Your task to perform on an android device: toggle show notifications on the lock screen Image 0: 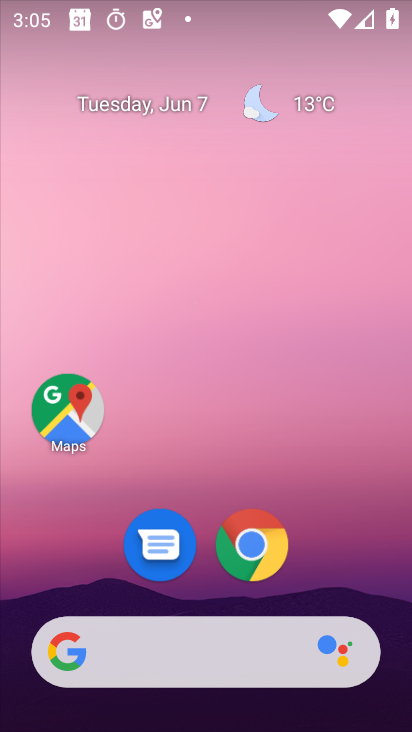
Step 0: drag from (304, 312) to (208, 50)
Your task to perform on an android device: toggle show notifications on the lock screen Image 1: 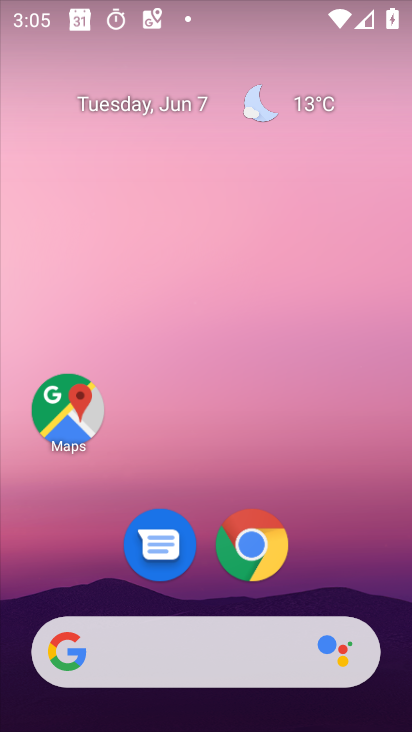
Step 1: drag from (225, 39) to (189, 22)
Your task to perform on an android device: toggle show notifications on the lock screen Image 2: 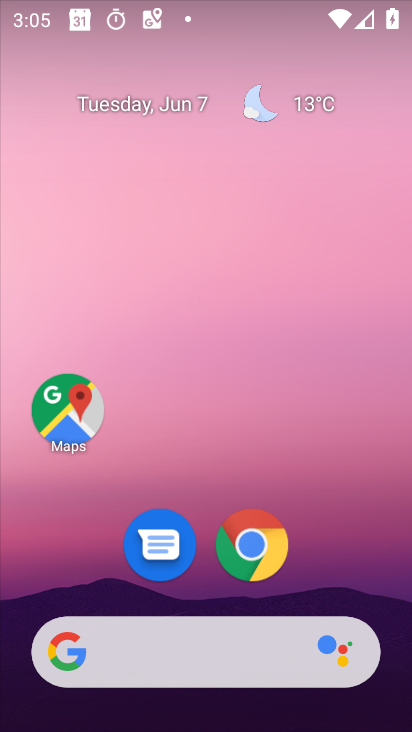
Step 2: drag from (350, 556) to (297, 21)
Your task to perform on an android device: toggle show notifications on the lock screen Image 3: 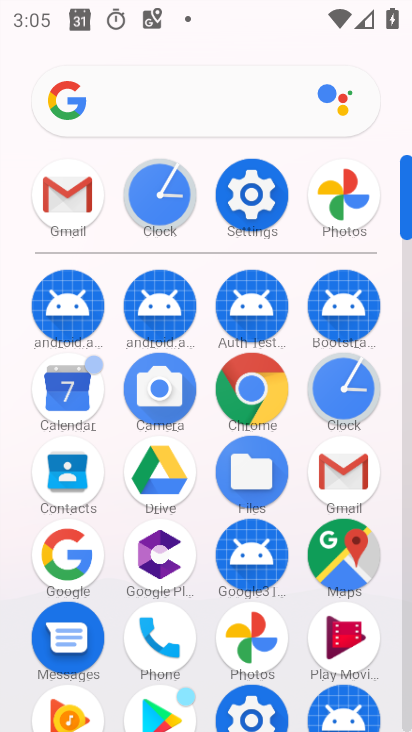
Step 3: click (266, 192)
Your task to perform on an android device: toggle show notifications on the lock screen Image 4: 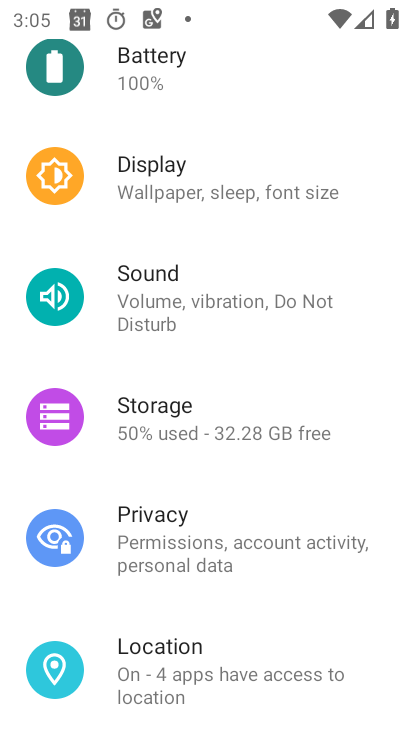
Step 4: drag from (213, 147) to (277, 697)
Your task to perform on an android device: toggle show notifications on the lock screen Image 5: 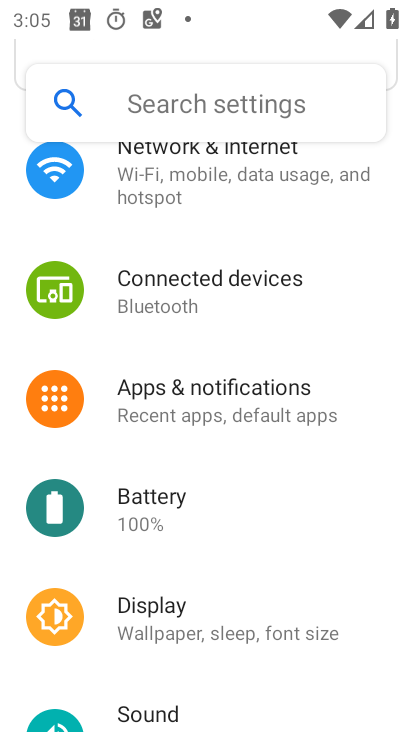
Step 5: click (258, 390)
Your task to perform on an android device: toggle show notifications on the lock screen Image 6: 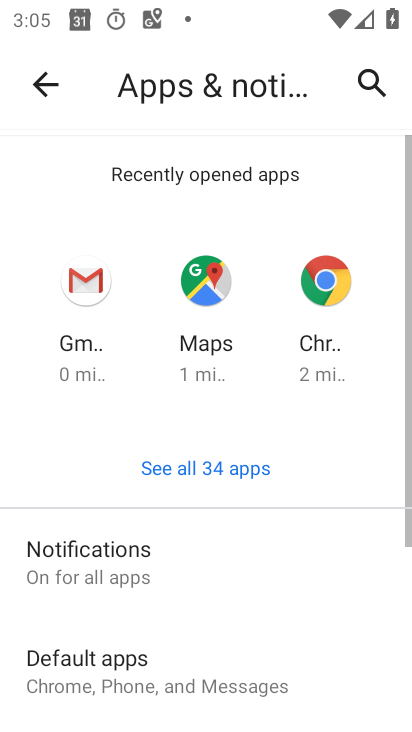
Step 6: click (200, 548)
Your task to perform on an android device: toggle show notifications on the lock screen Image 7: 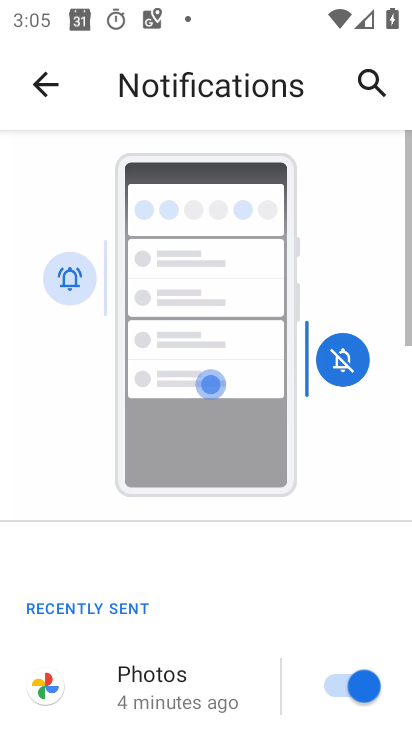
Step 7: drag from (218, 588) to (212, 31)
Your task to perform on an android device: toggle show notifications on the lock screen Image 8: 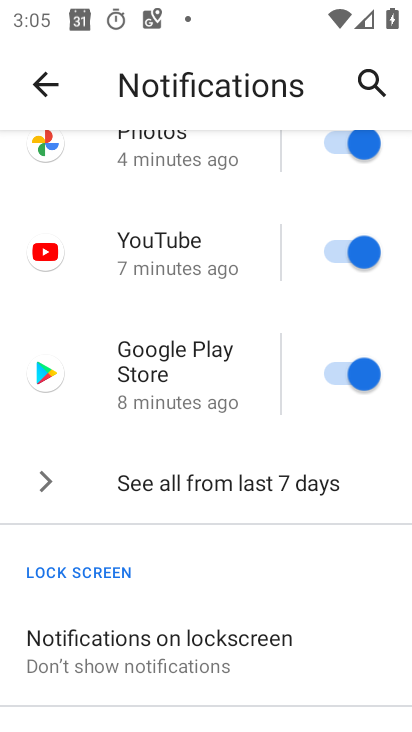
Step 8: drag from (251, 506) to (226, 99)
Your task to perform on an android device: toggle show notifications on the lock screen Image 9: 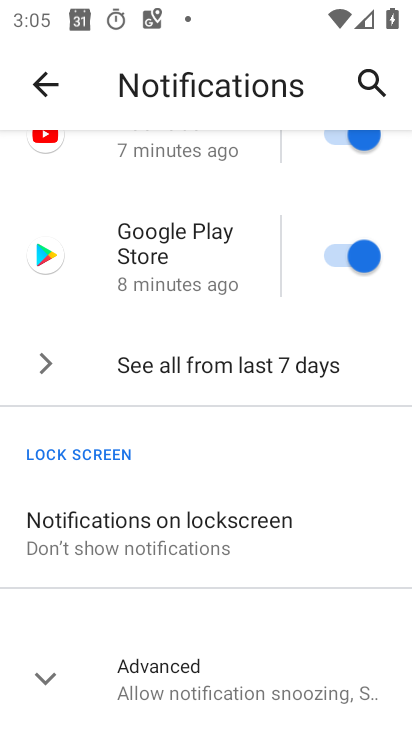
Step 9: click (193, 523)
Your task to perform on an android device: toggle show notifications on the lock screen Image 10: 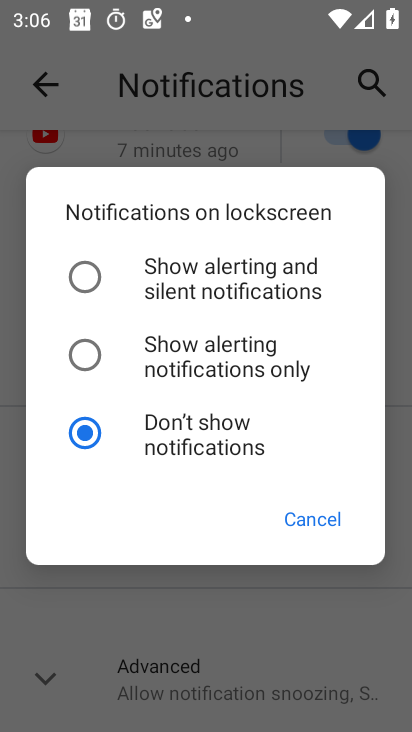
Step 10: click (201, 278)
Your task to perform on an android device: toggle show notifications on the lock screen Image 11: 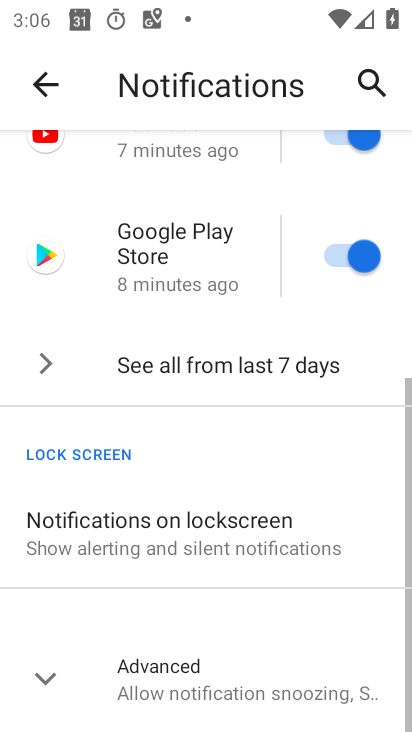
Step 11: task complete